Your task to perform on an android device: add a label to a message in the gmail app Image 0: 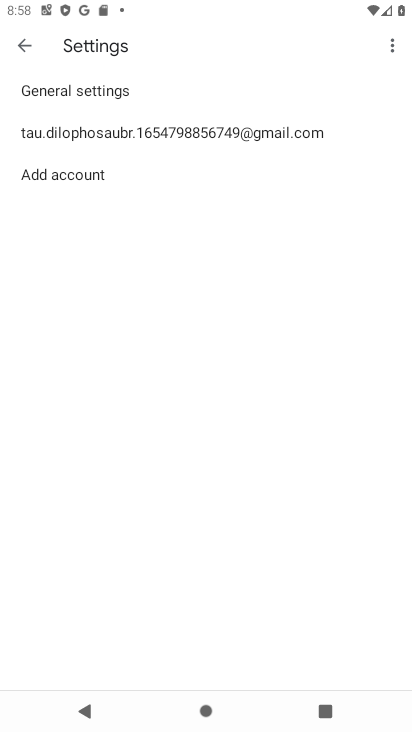
Step 0: click (17, 43)
Your task to perform on an android device: add a label to a message in the gmail app Image 1: 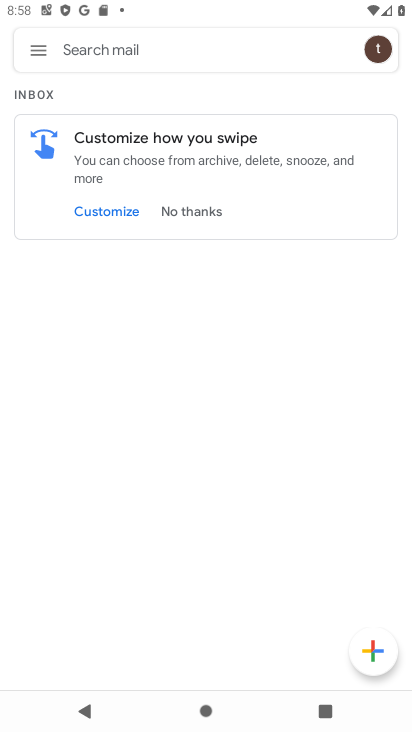
Step 1: click (201, 214)
Your task to perform on an android device: add a label to a message in the gmail app Image 2: 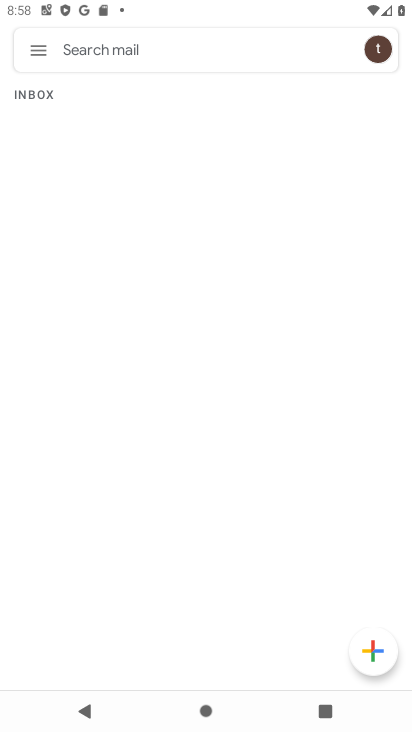
Step 2: click (29, 43)
Your task to perform on an android device: add a label to a message in the gmail app Image 3: 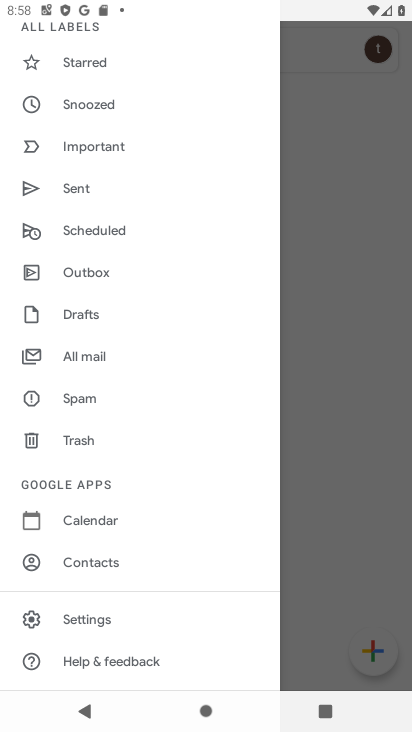
Step 3: click (94, 362)
Your task to perform on an android device: add a label to a message in the gmail app Image 4: 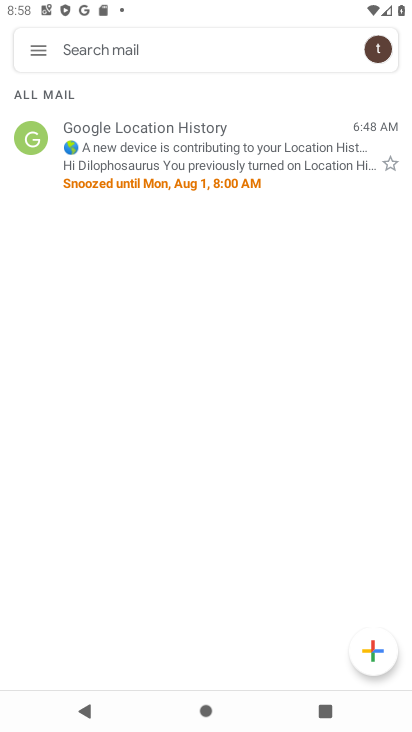
Step 4: click (31, 133)
Your task to perform on an android device: add a label to a message in the gmail app Image 5: 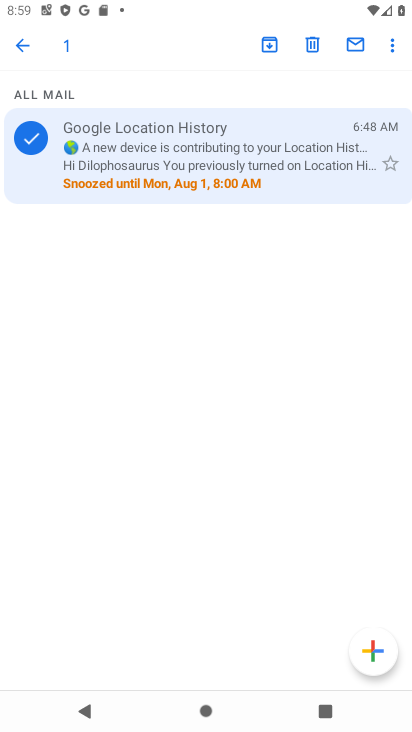
Step 5: click (390, 42)
Your task to perform on an android device: add a label to a message in the gmail app Image 6: 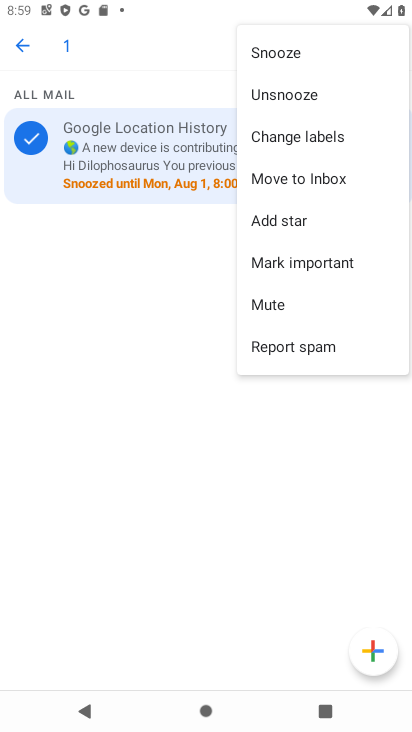
Step 6: click (304, 144)
Your task to perform on an android device: add a label to a message in the gmail app Image 7: 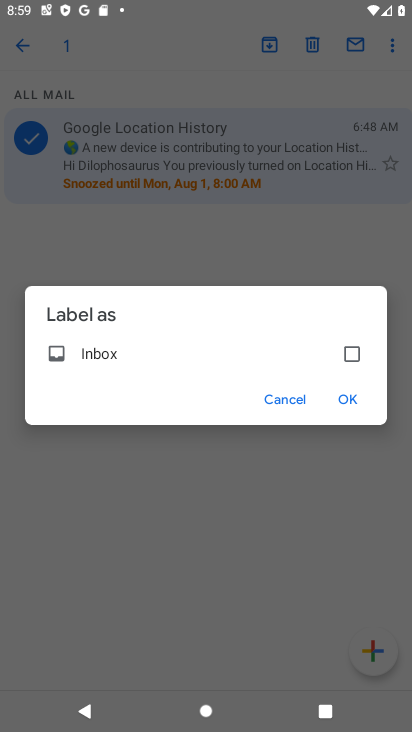
Step 7: click (345, 358)
Your task to perform on an android device: add a label to a message in the gmail app Image 8: 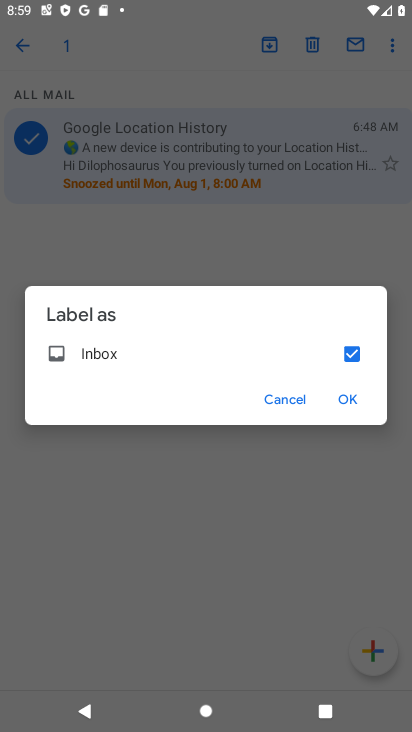
Step 8: click (348, 406)
Your task to perform on an android device: add a label to a message in the gmail app Image 9: 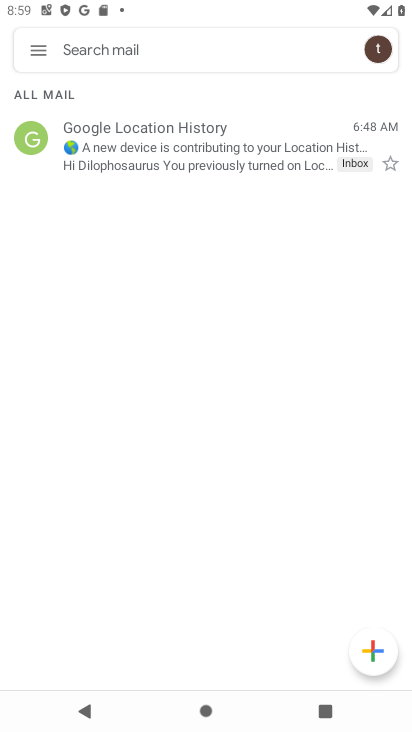
Step 9: task complete